Your task to perform on an android device: Open maps Image 0: 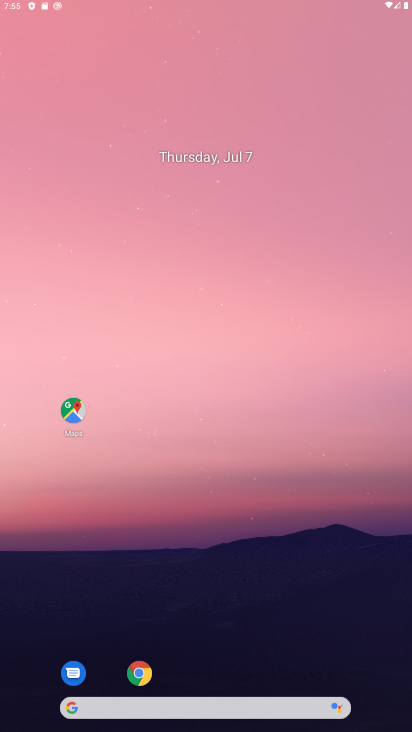
Step 0: click (280, 156)
Your task to perform on an android device: Open maps Image 1: 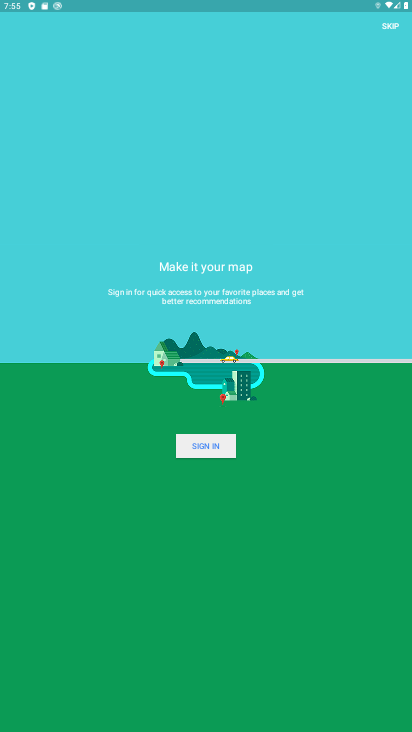
Step 1: press home button
Your task to perform on an android device: Open maps Image 2: 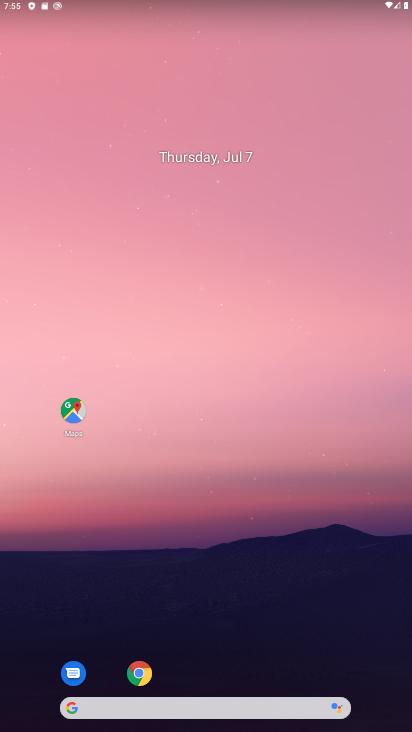
Step 2: click (72, 405)
Your task to perform on an android device: Open maps Image 3: 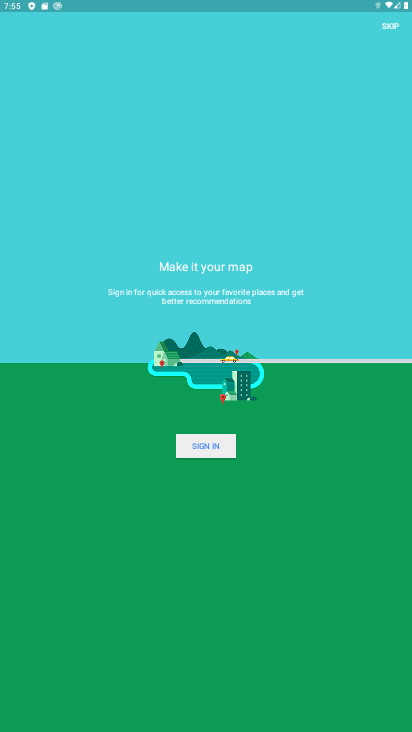
Step 3: task complete